Your task to perform on an android device: open app "Spotify" (install if not already installed), go to login, and select forgot password Image 0: 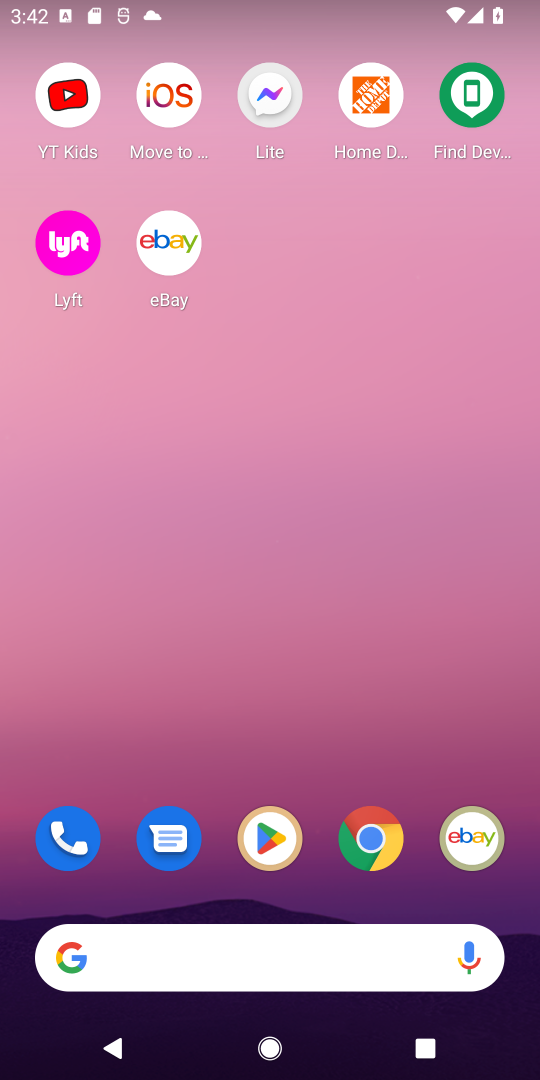
Step 0: press home button
Your task to perform on an android device: open app "Spotify" (install if not already installed), go to login, and select forgot password Image 1: 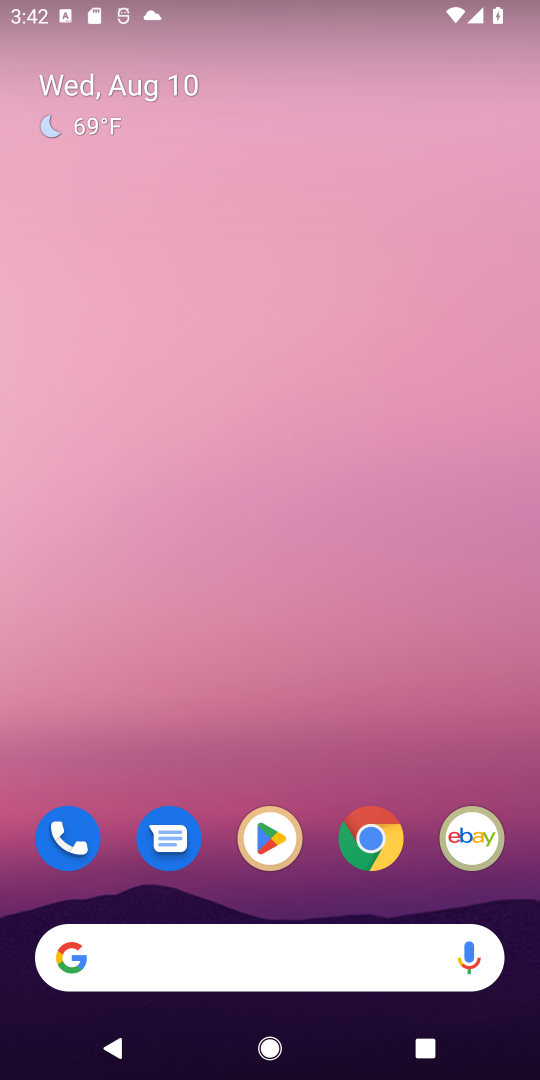
Step 1: click (266, 844)
Your task to perform on an android device: open app "Spotify" (install if not already installed), go to login, and select forgot password Image 2: 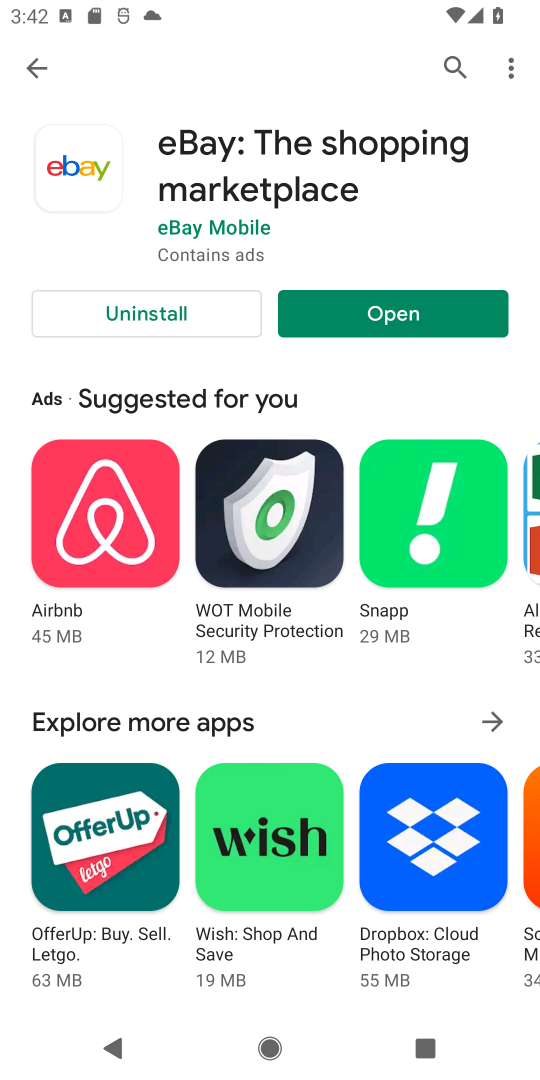
Step 2: click (442, 64)
Your task to perform on an android device: open app "Spotify" (install if not already installed), go to login, and select forgot password Image 3: 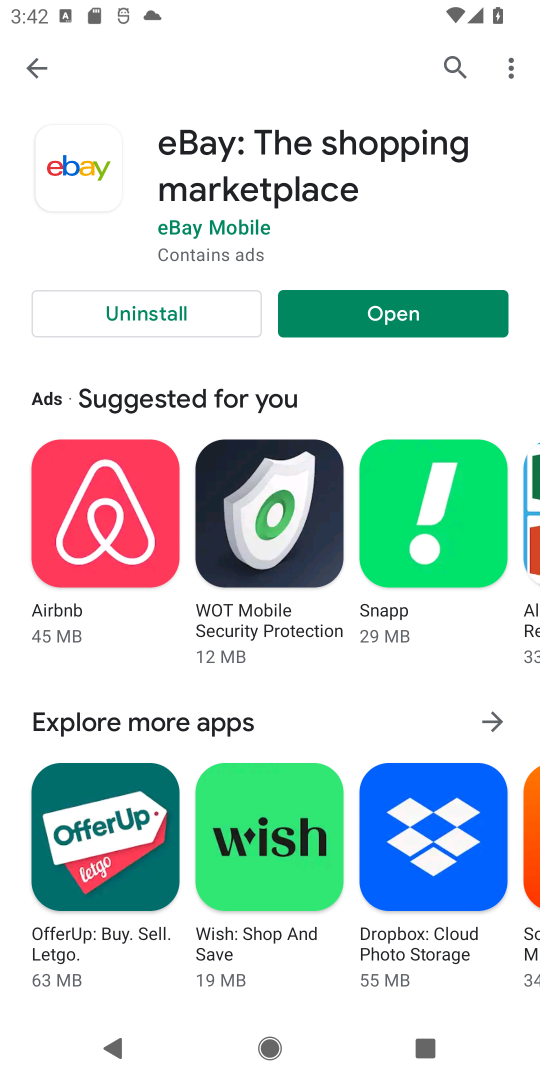
Step 3: click (446, 63)
Your task to perform on an android device: open app "Spotify" (install if not already installed), go to login, and select forgot password Image 4: 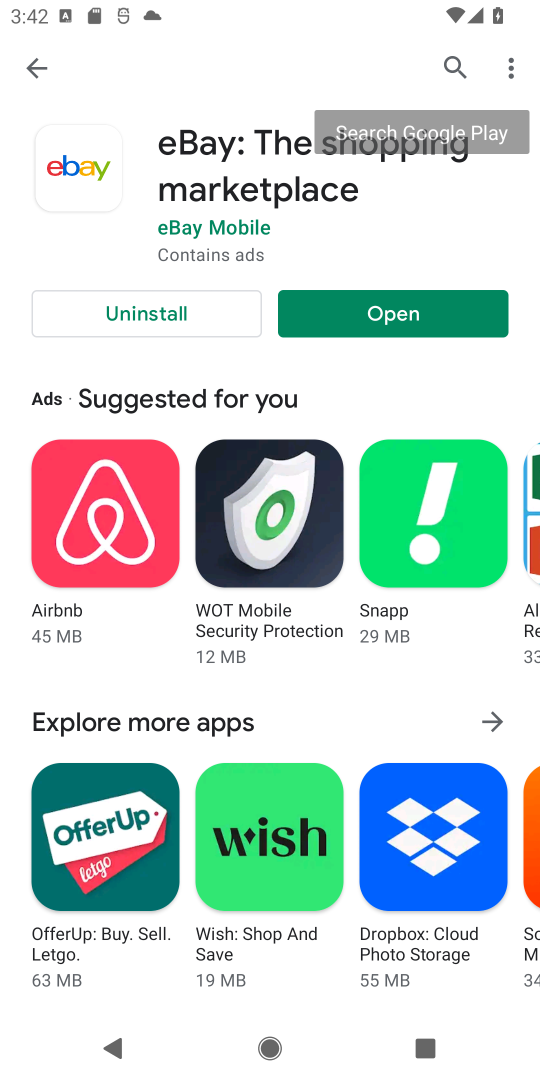
Step 4: click (455, 64)
Your task to perform on an android device: open app "Spotify" (install if not already installed), go to login, and select forgot password Image 5: 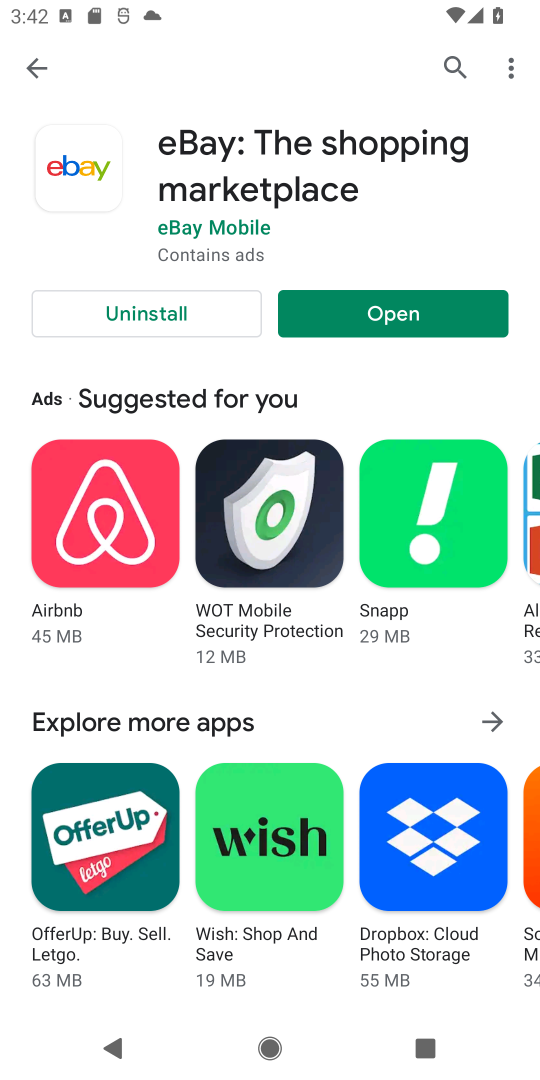
Step 5: press back button
Your task to perform on an android device: open app "Spotify" (install if not already installed), go to login, and select forgot password Image 6: 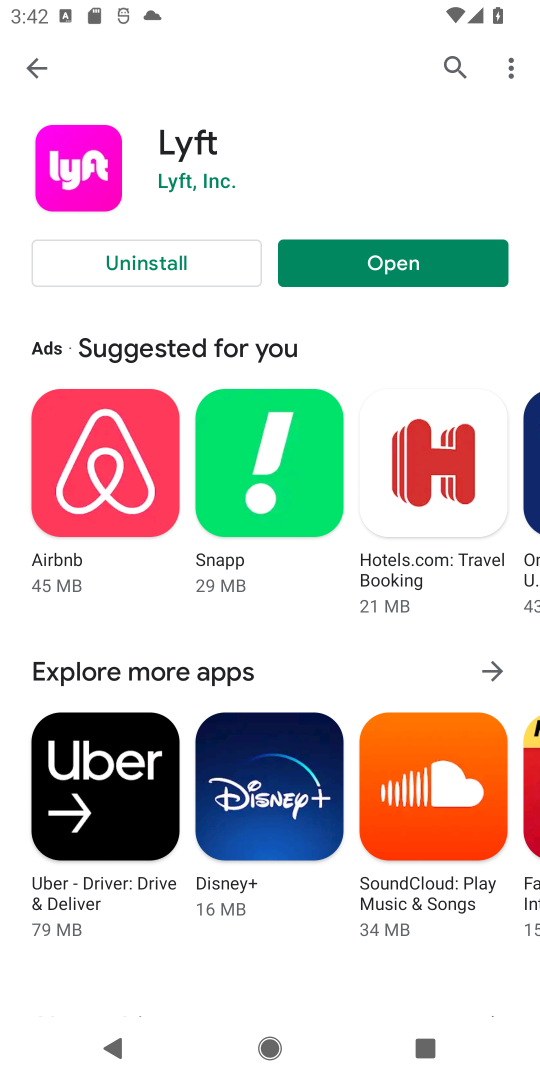
Step 6: click (447, 66)
Your task to perform on an android device: open app "Spotify" (install if not already installed), go to login, and select forgot password Image 7: 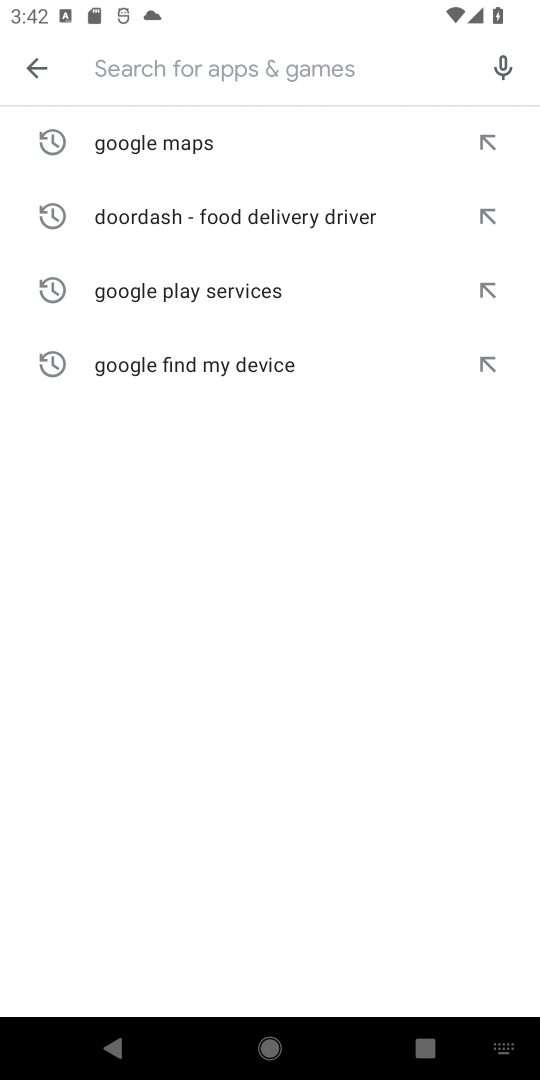
Step 7: type "Spotify"
Your task to perform on an android device: open app "Spotify" (install if not already installed), go to login, and select forgot password Image 8: 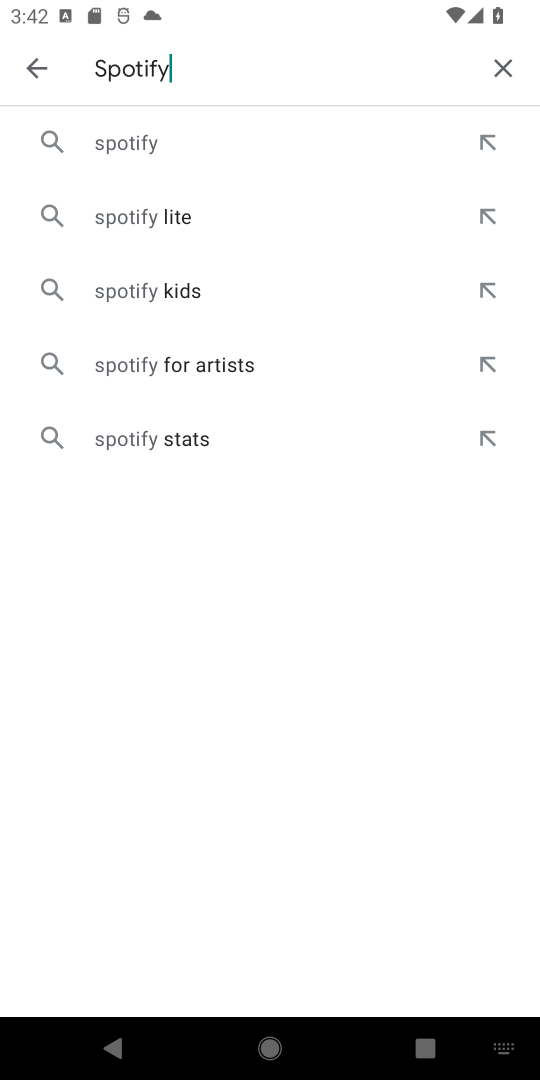
Step 8: click (147, 141)
Your task to perform on an android device: open app "Spotify" (install if not already installed), go to login, and select forgot password Image 9: 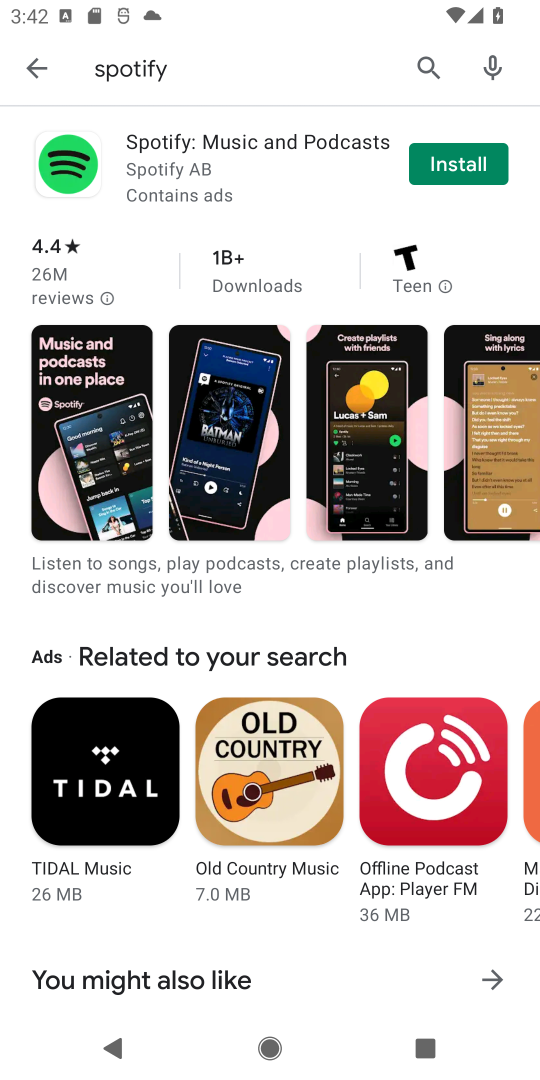
Step 9: click (457, 166)
Your task to perform on an android device: open app "Spotify" (install if not already installed), go to login, and select forgot password Image 10: 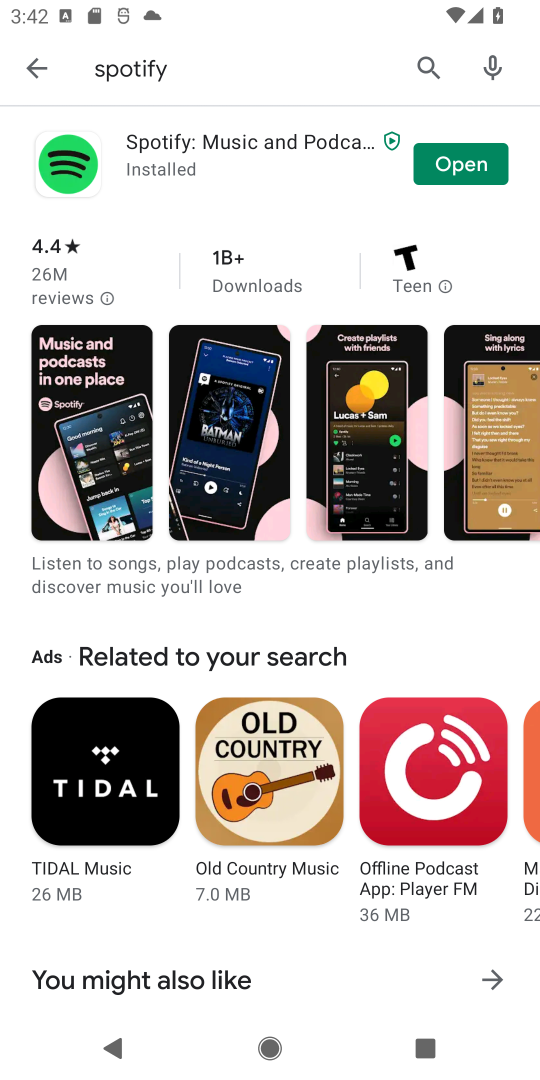
Step 10: click (449, 165)
Your task to perform on an android device: open app "Spotify" (install if not already installed), go to login, and select forgot password Image 11: 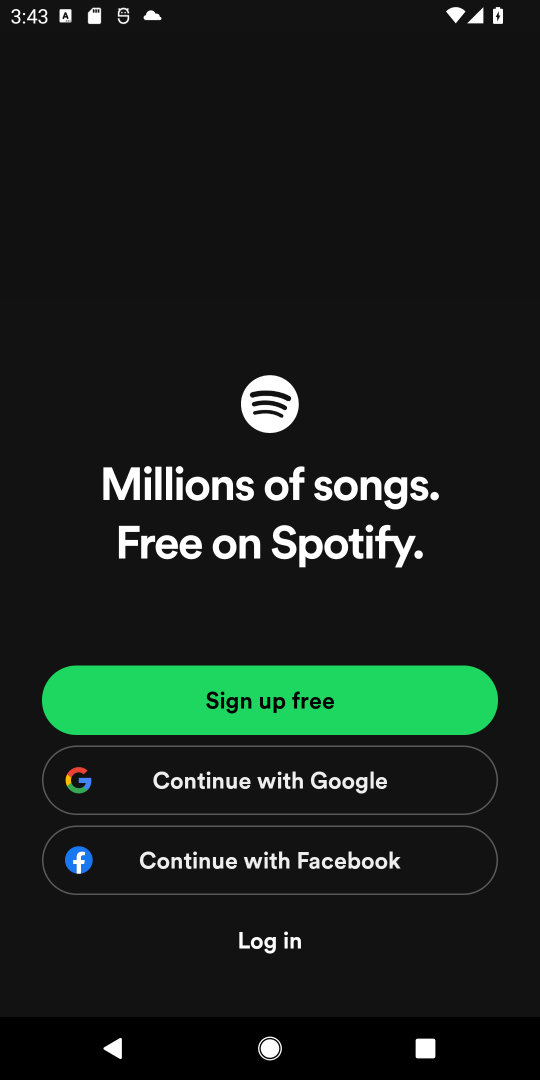
Step 11: click (254, 939)
Your task to perform on an android device: open app "Spotify" (install if not already installed), go to login, and select forgot password Image 12: 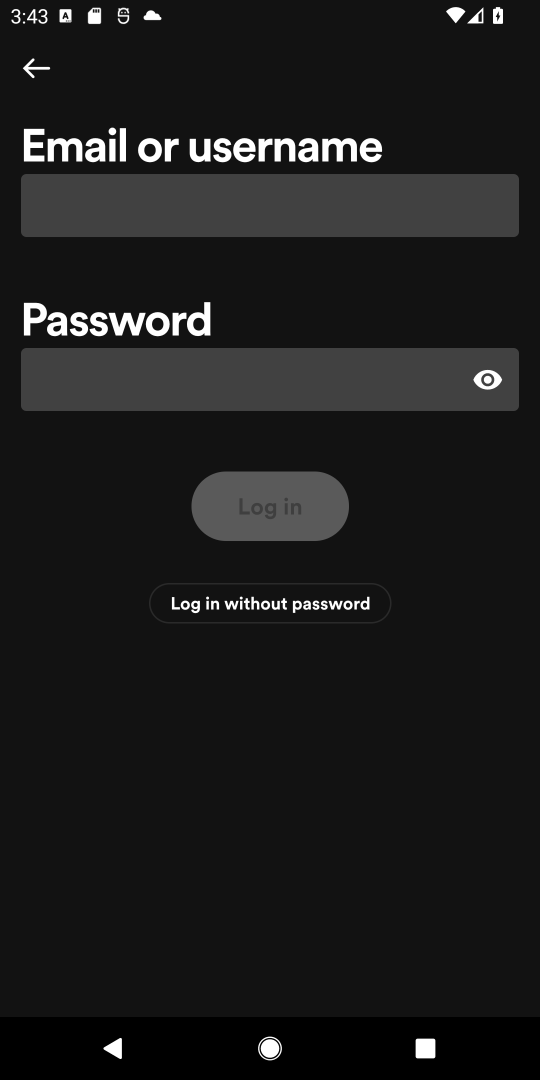
Step 12: click (314, 615)
Your task to perform on an android device: open app "Spotify" (install if not already installed), go to login, and select forgot password Image 13: 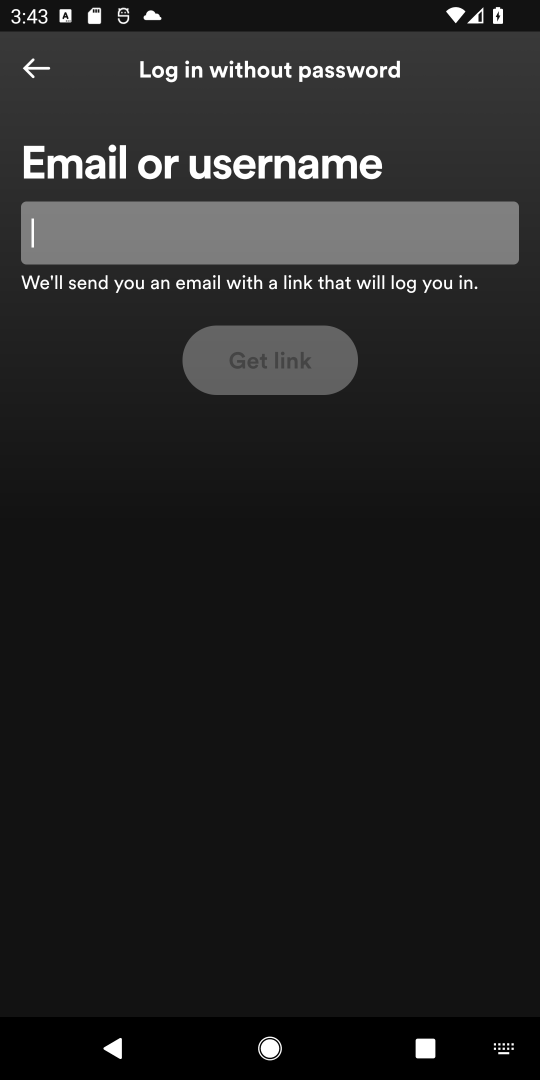
Step 13: task complete